Your task to perform on an android device: snooze an email in the gmail app Image 0: 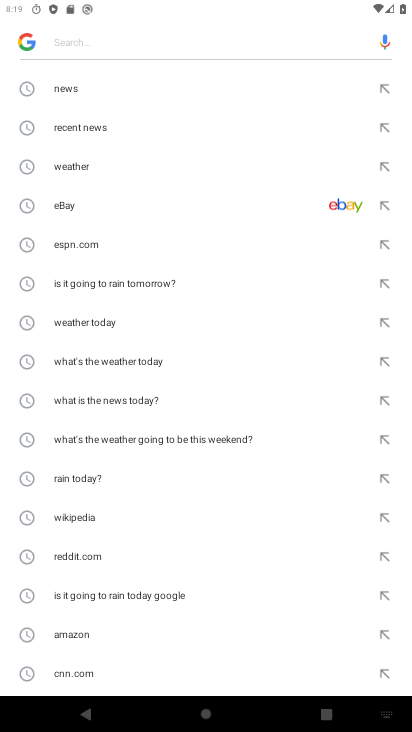
Step 0: press home button
Your task to perform on an android device: snooze an email in the gmail app Image 1: 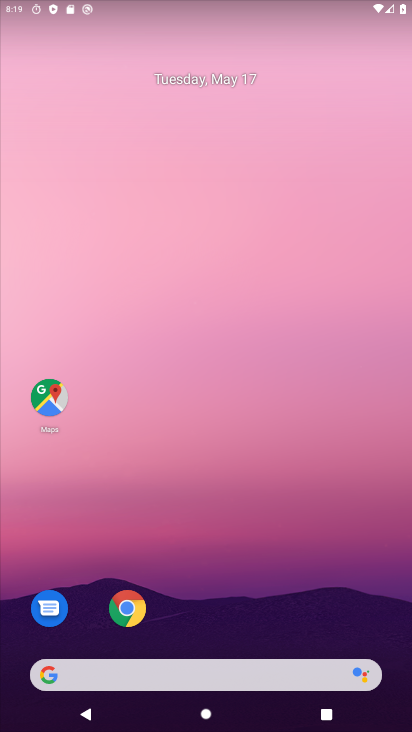
Step 1: drag from (348, 539) to (323, 177)
Your task to perform on an android device: snooze an email in the gmail app Image 2: 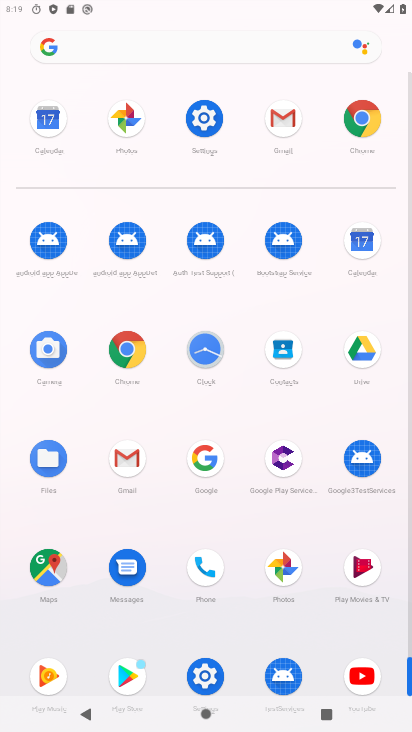
Step 2: click (126, 458)
Your task to perform on an android device: snooze an email in the gmail app Image 3: 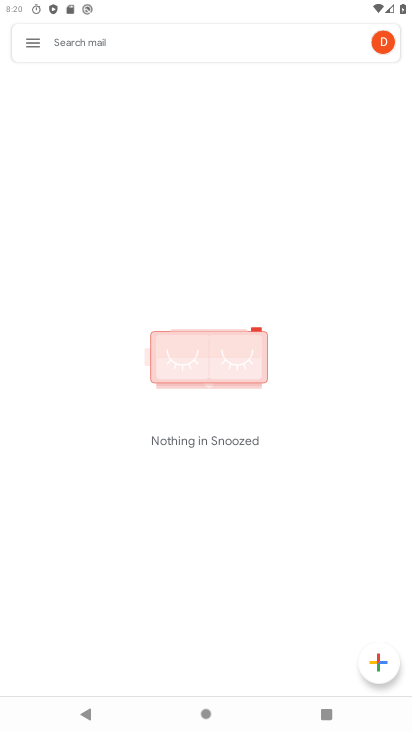
Step 3: click (42, 37)
Your task to perform on an android device: snooze an email in the gmail app Image 4: 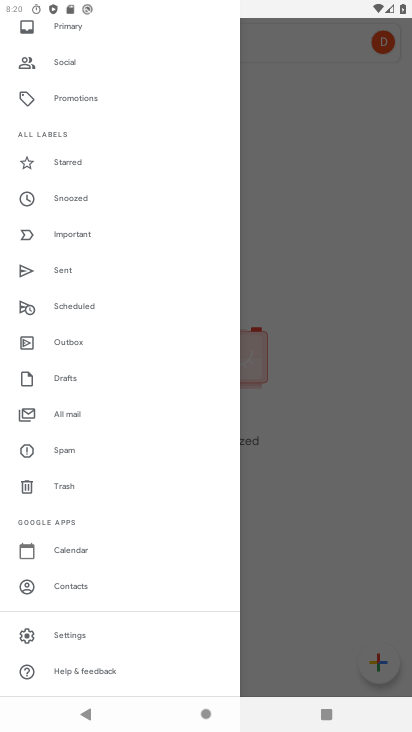
Step 4: click (113, 418)
Your task to perform on an android device: snooze an email in the gmail app Image 5: 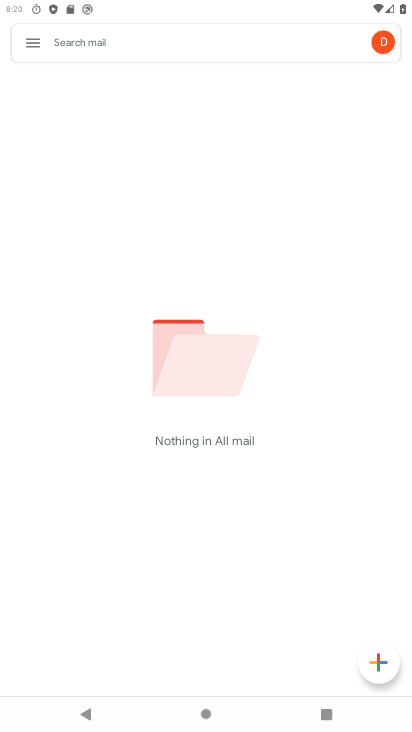
Step 5: task complete